Your task to perform on an android device: Show me popular games on the Play Store Image 0: 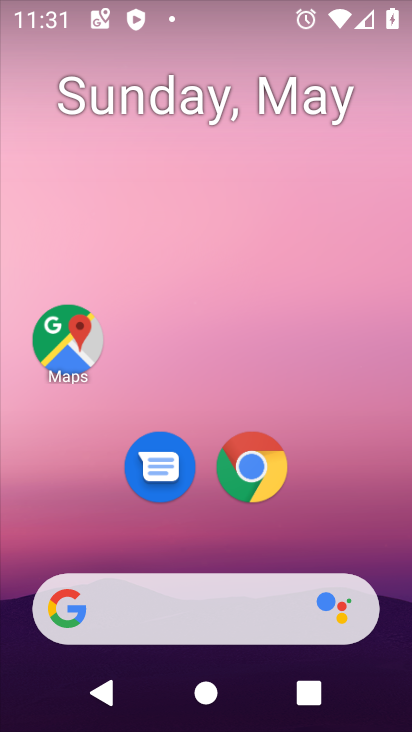
Step 0: drag from (404, 550) to (219, 5)
Your task to perform on an android device: Show me popular games on the Play Store Image 1: 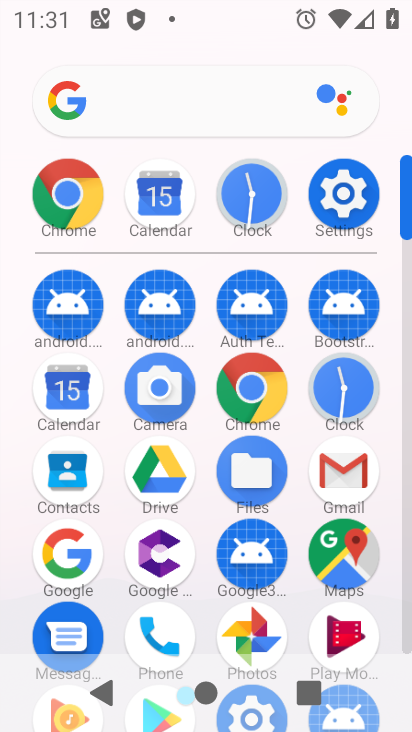
Step 1: drag from (405, 475) to (402, 427)
Your task to perform on an android device: Show me popular games on the Play Store Image 2: 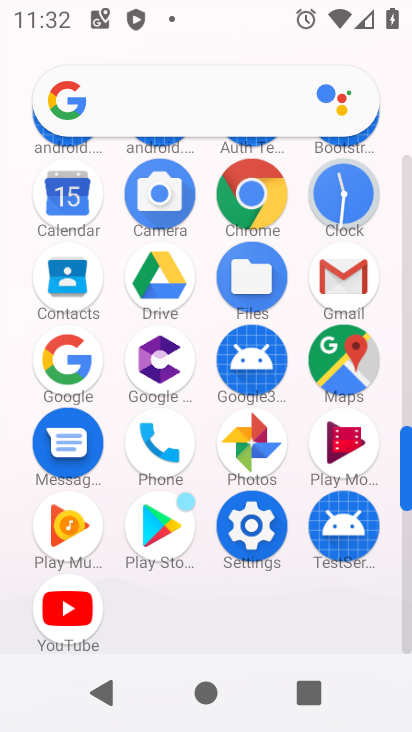
Step 2: click (155, 530)
Your task to perform on an android device: Show me popular games on the Play Store Image 3: 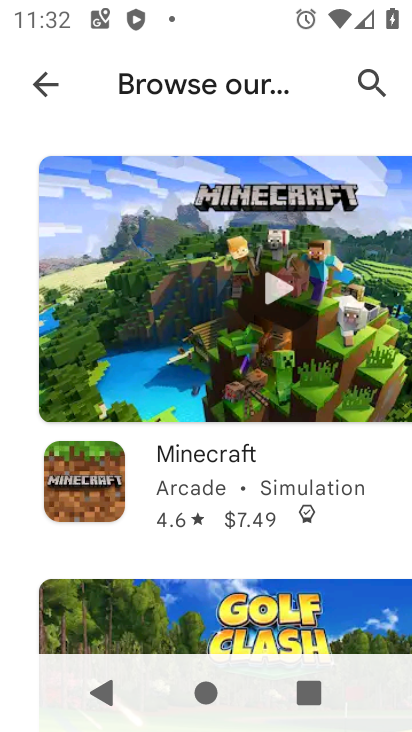
Step 3: task complete